Your task to perform on an android device: change timer sound Image 0: 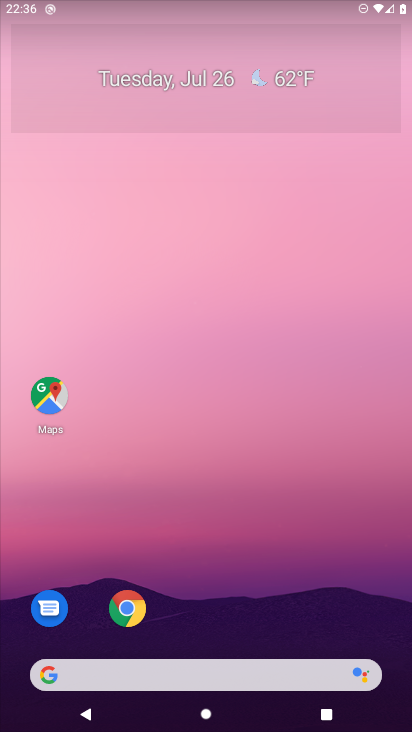
Step 0: drag from (85, 509) to (284, 37)
Your task to perform on an android device: change timer sound Image 1: 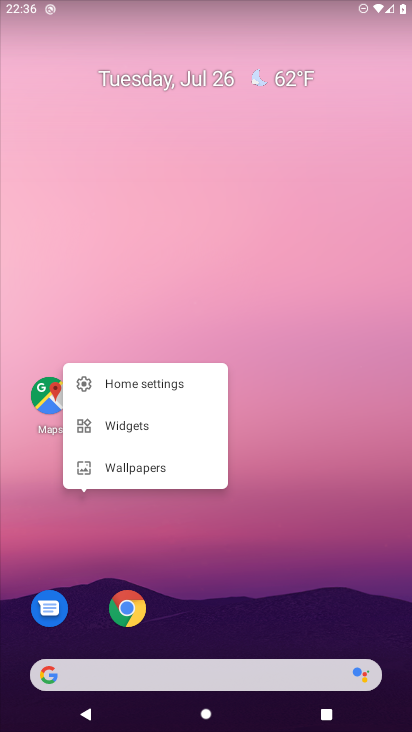
Step 1: drag from (28, 710) to (266, 65)
Your task to perform on an android device: change timer sound Image 2: 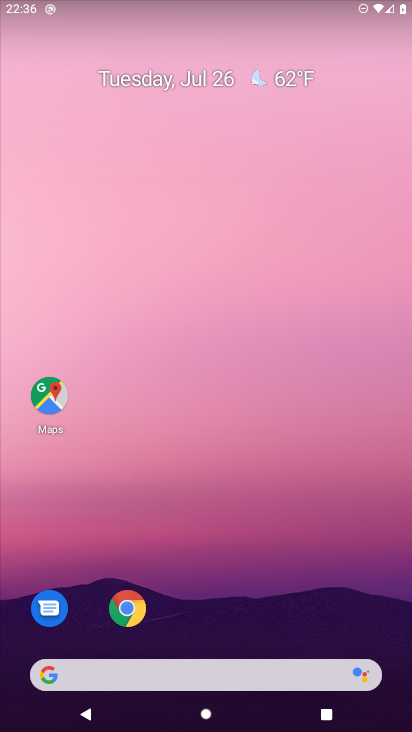
Step 2: drag from (15, 710) to (207, 140)
Your task to perform on an android device: change timer sound Image 3: 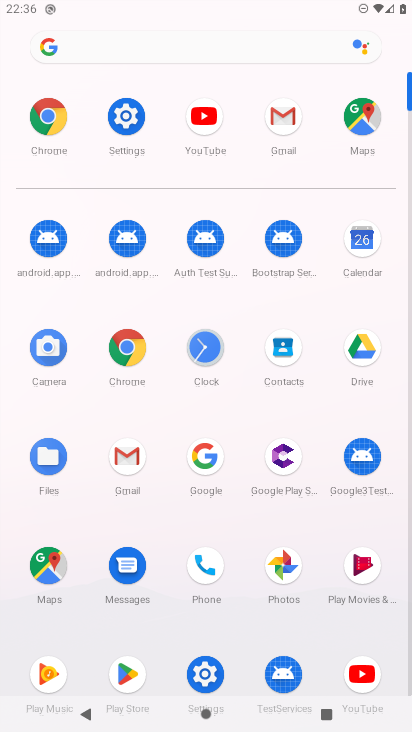
Step 3: click (205, 667)
Your task to perform on an android device: change timer sound Image 4: 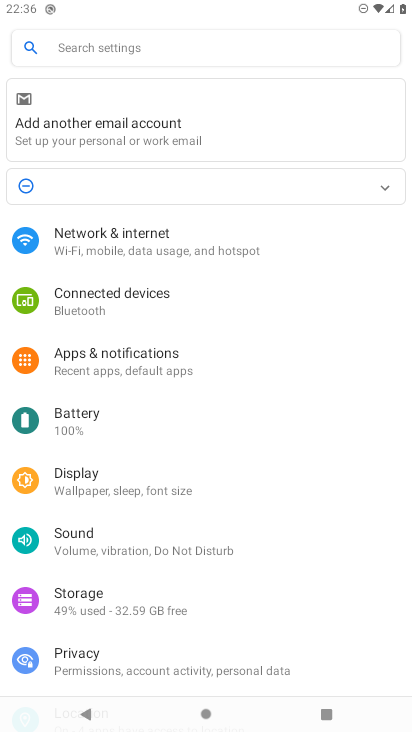
Step 4: click (103, 534)
Your task to perform on an android device: change timer sound Image 5: 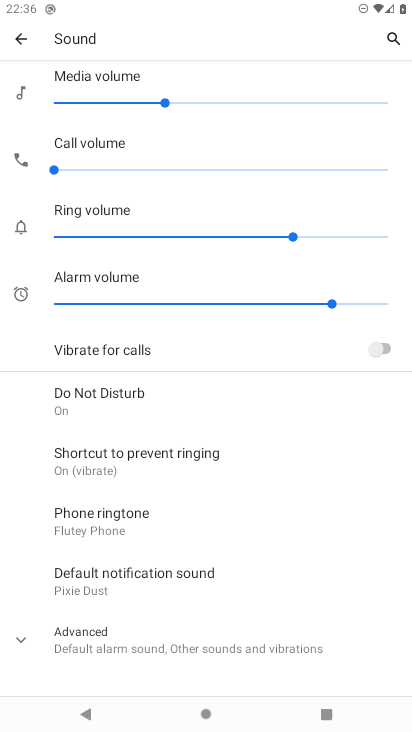
Step 5: task complete